Your task to perform on an android device: Open Google Chrome and open the bookmarks view Image 0: 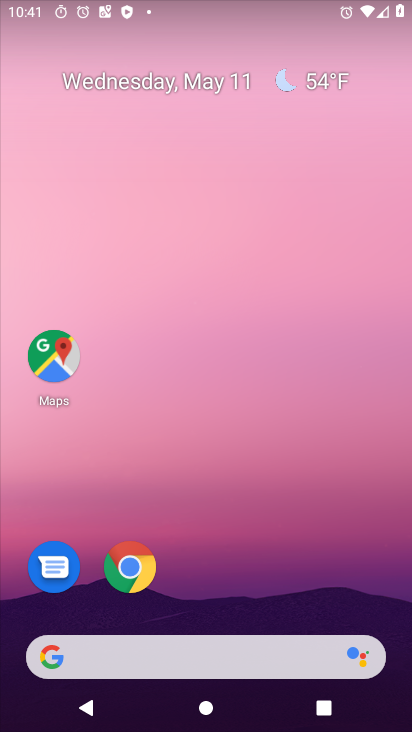
Step 0: drag from (222, 543) to (330, 25)
Your task to perform on an android device: Open Google Chrome and open the bookmarks view Image 1: 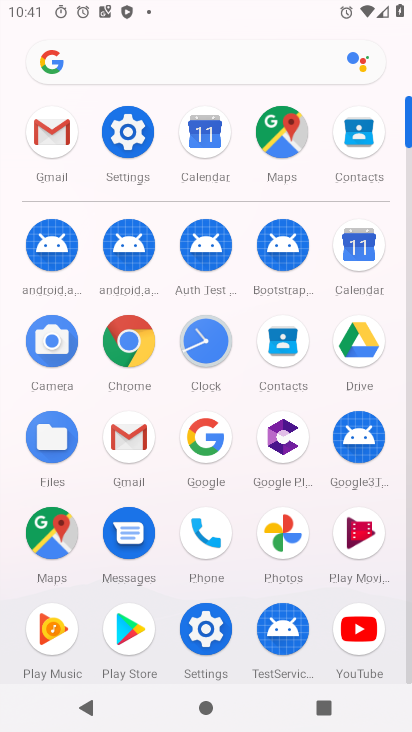
Step 1: click (123, 348)
Your task to perform on an android device: Open Google Chrome and open the bookmarks view Image 2: 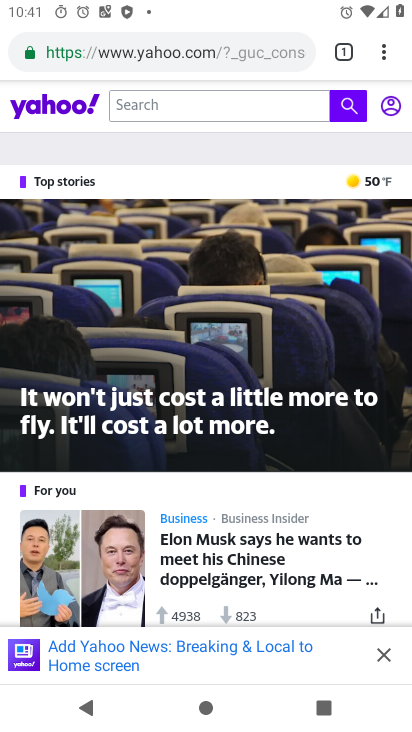
Step 2: click (378, 63)
Your task to perform on an android device: Open Google Chrome and open the bookmarks view Image 3: 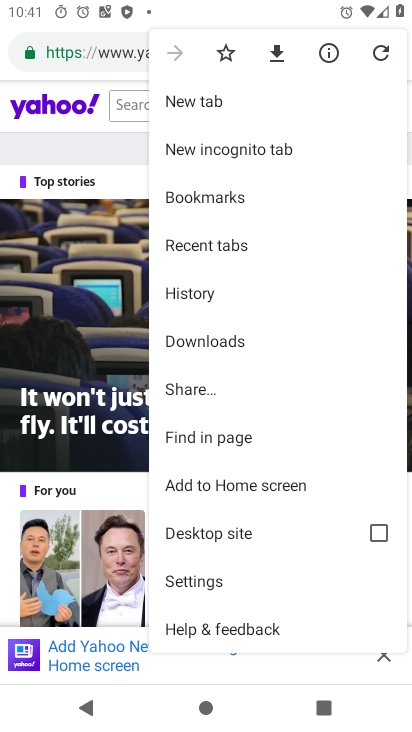
Step 3: click (230, 198)
Your task to perform on an android device: Open Google Chrome and open the bookmarks view Image 4: 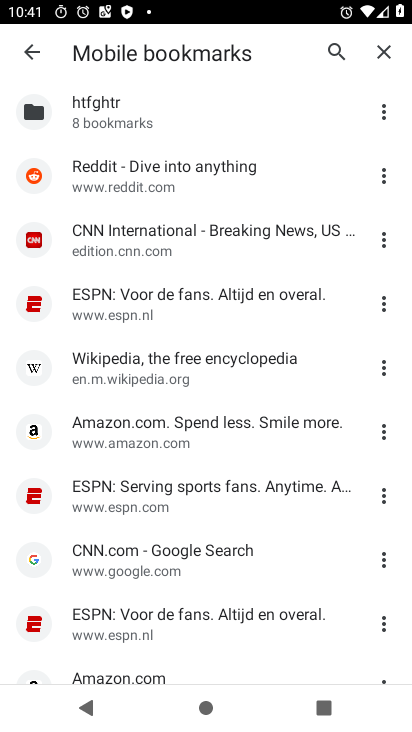
Step 4: task complete